Your task to perform on an android device: What's the weather? Image 0: 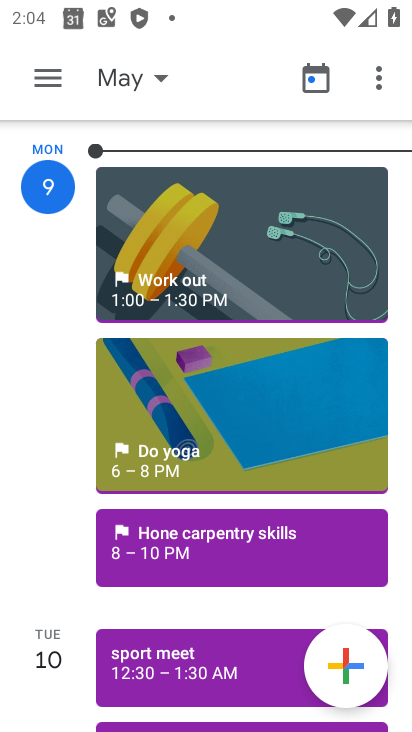
Step 0: press home button
Your task to perform on an android device: What's the weather? Image 1: 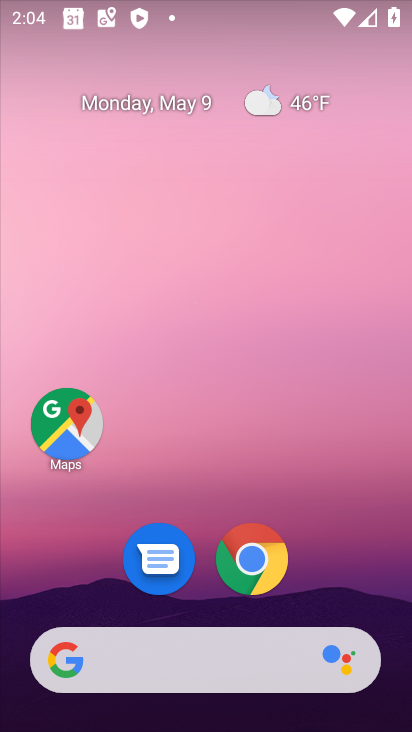
Step 1: drag from (395, 570) to (375, 140)
Your task to perform on an android device: What's the weather? Image 2: 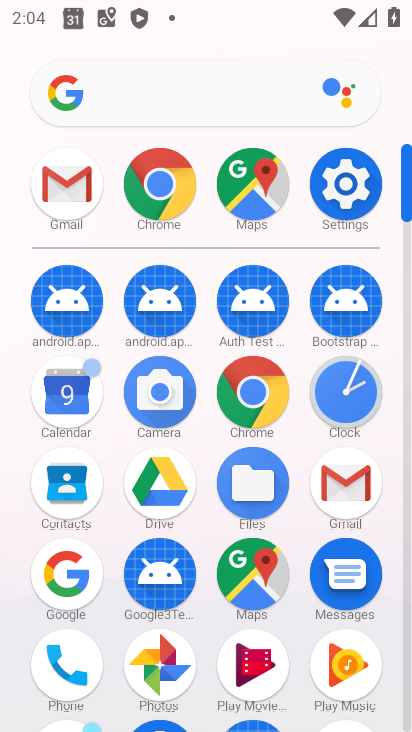
Step 2: click (179, 209)
Your task to perform on an android device: What's the weather? Image 3: 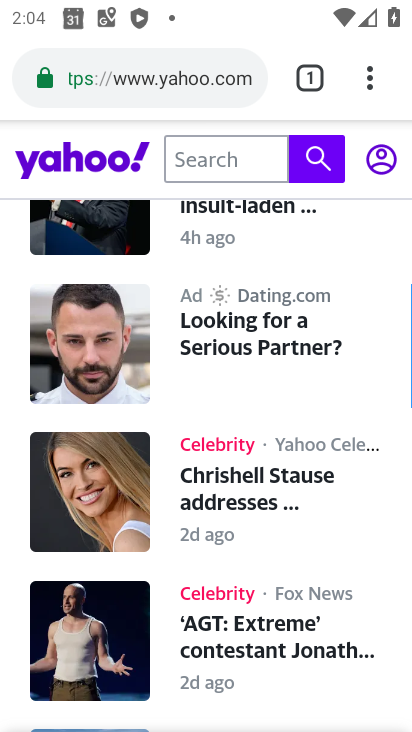
Step 3: click (181, 82)
Your task to perform on an android device: What's the weather? Image 4: 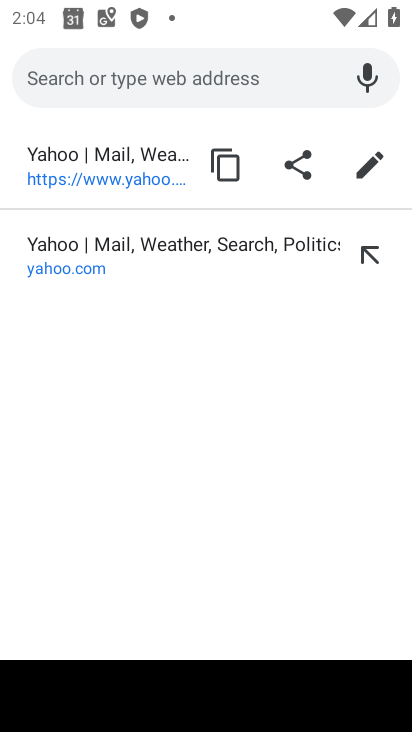
Step 4: type "what's the weather "
Your task to perform on an android device: What's the weather? Image 5: 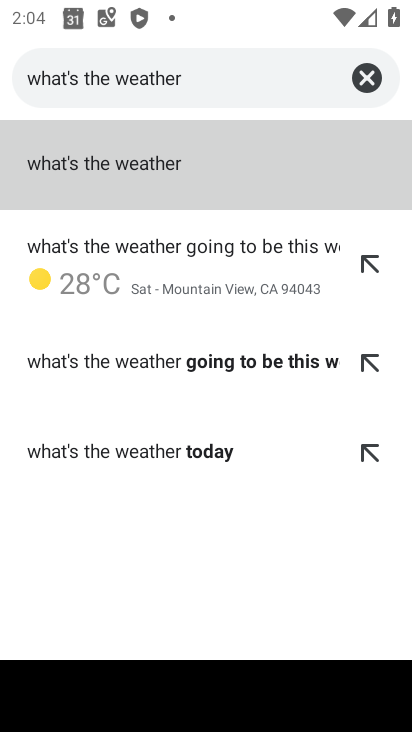
Step 5: click (29, 164)
Your task to perform on an android device: What's the weather? Image 6: 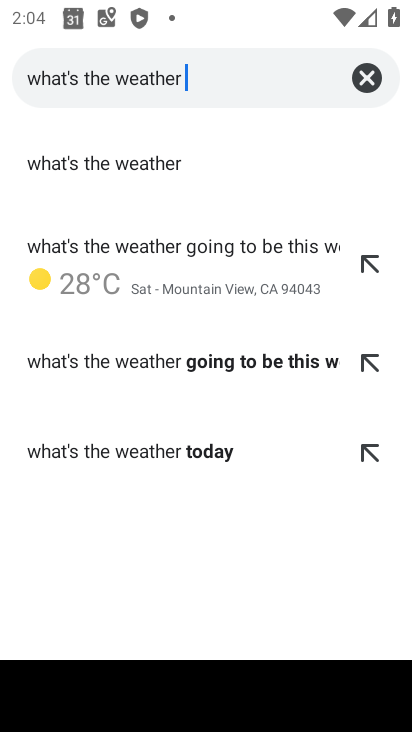
Step 6: click (146, 168)
Your task to perform on an android device: What's the weather? Image 7: 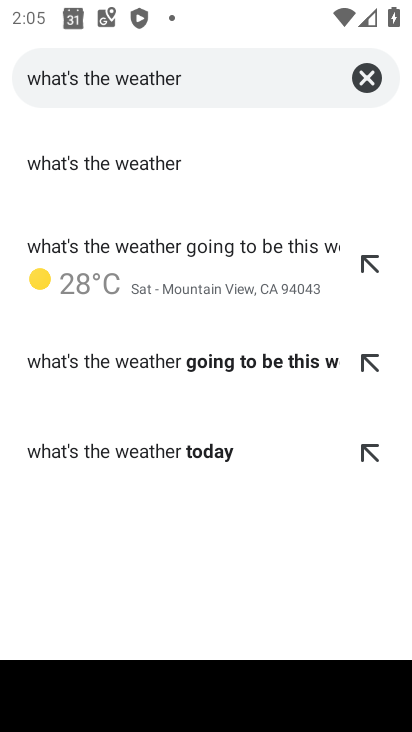
Step 7: click (169, 180)
Your task to perform on an android device: What's the weather? Image 8: 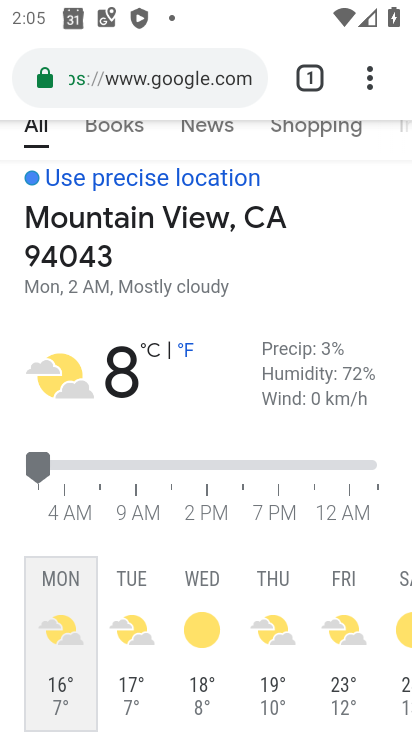
Step 8: task complete